Your task to perform on an android device: delete a single message in the gmail app Image 0: 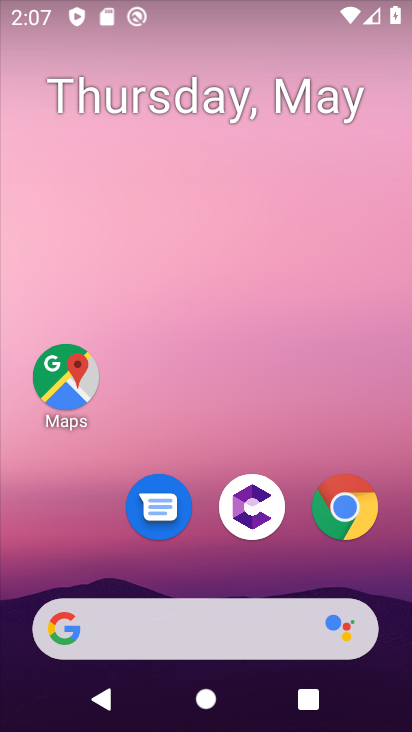
Step 0: press home button
Your task to perform on an android device: delete a single message in the gmail app Image 1: 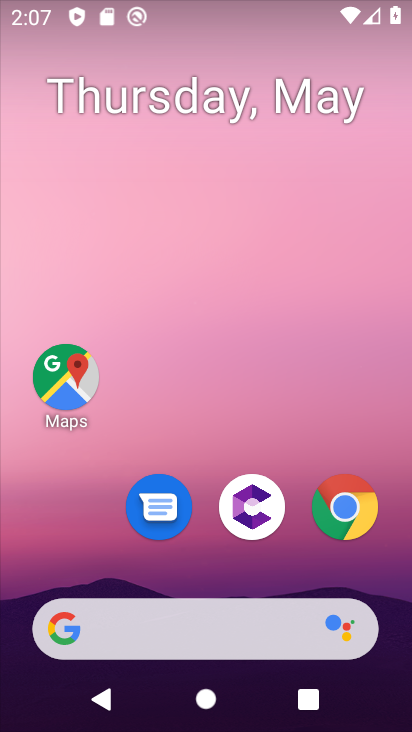
Step 1: drag from (182, 560) to (145, 181)
Your task to perform on an android device: delete a single message in the gmail app Image 2: 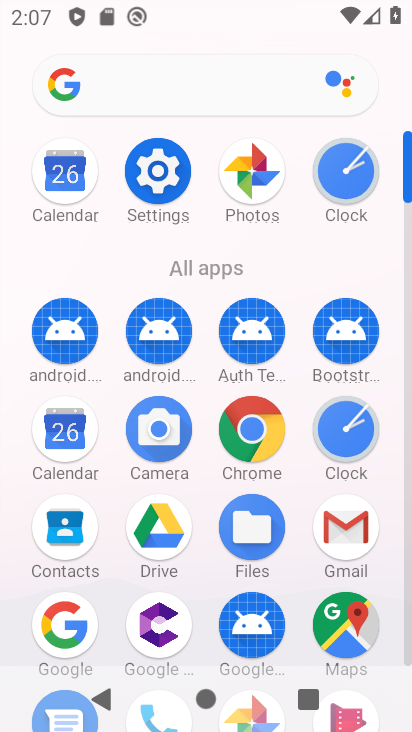
Step 2: click (341, 531)
Your task to perform on an android device: delete a single message in the gmail app Image 3: 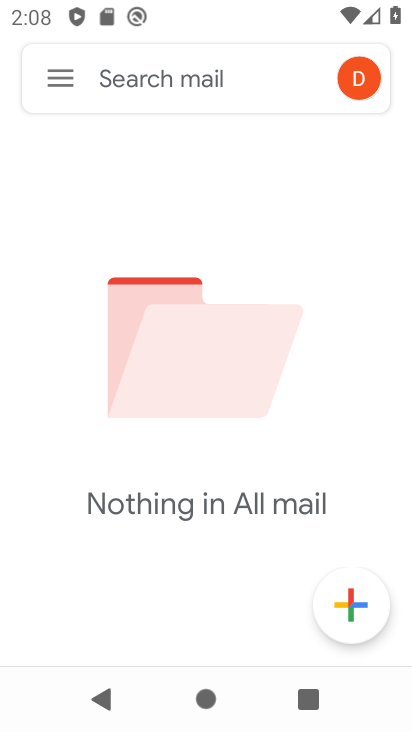
Step 3: click (46, 81)
Your task to perform on an android device: delete a single message in the gmail app Image 4: 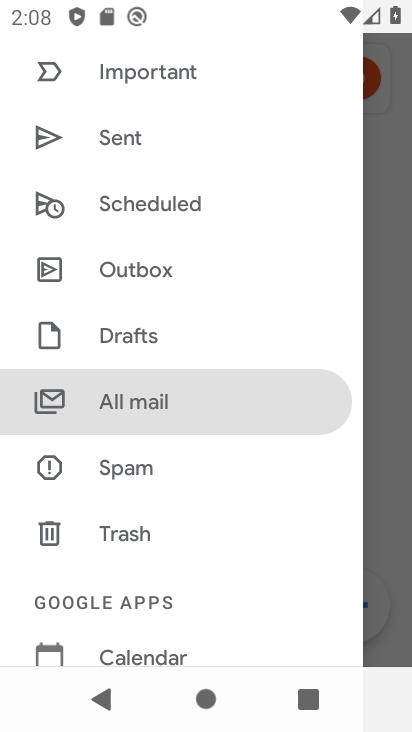
Step 4: click (108, 400)
Your task to perform on an android device: delete a single message in the gmail app Image 5: 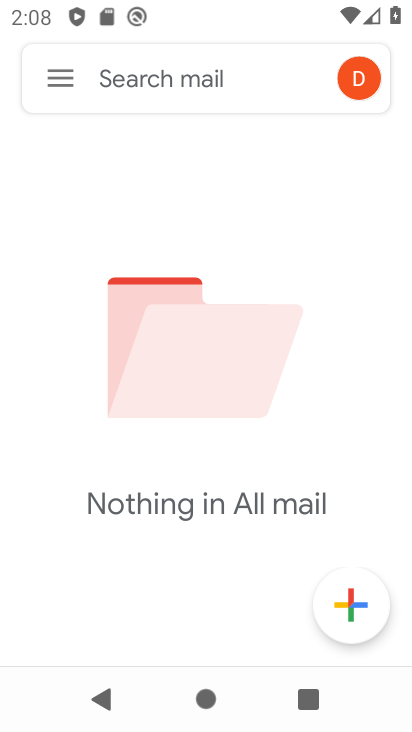
Step 5: task complete